Your task to perform on an android device: When is my next meeting? Image 0: 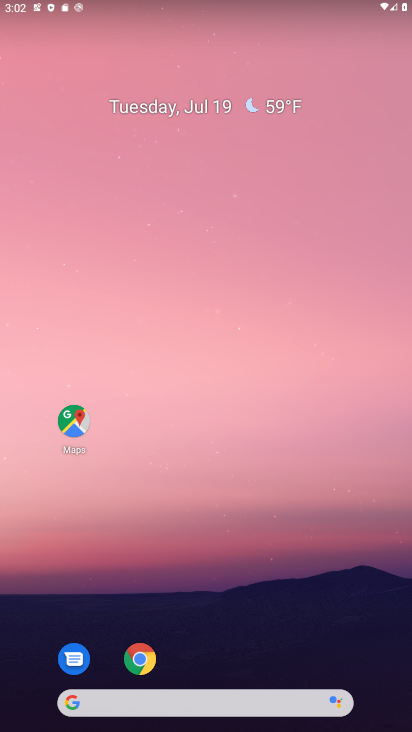
Step 0: drag from (185, 706) to (250, 139)
Your task to perform on an android device: When is my next meeting? Image 1: 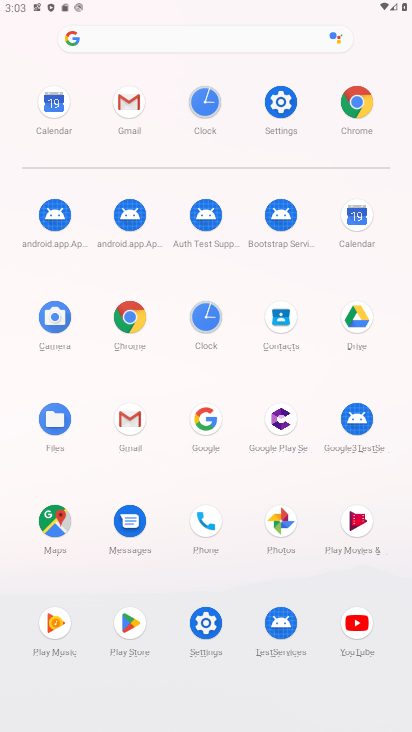
Step 1: click (359, 219)
Your task to perform on an android device: When is my next meeting? Image 2: 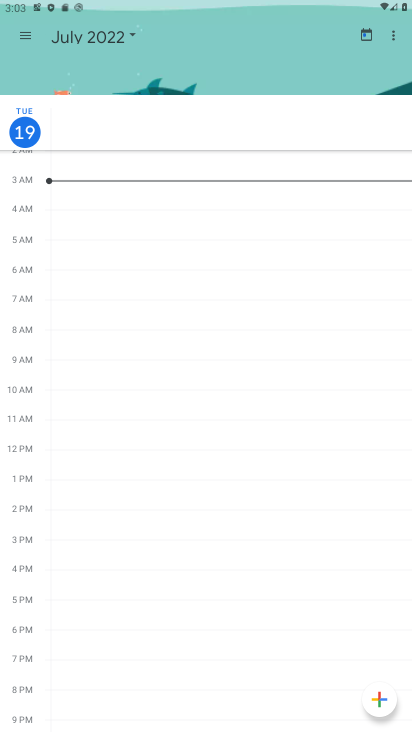
Step 2: click (367, 36)
Your task to perform on an android device: When is my next meeting? Image 3: 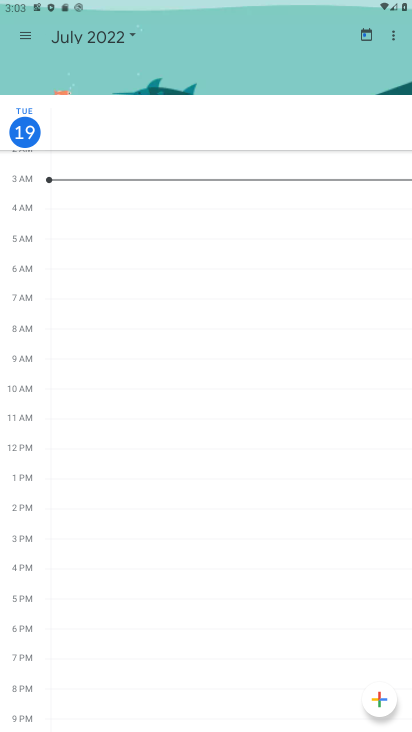
Step 3: click (132, 35)
Your task to perform on an android device: When is my next meeting? Image 4: 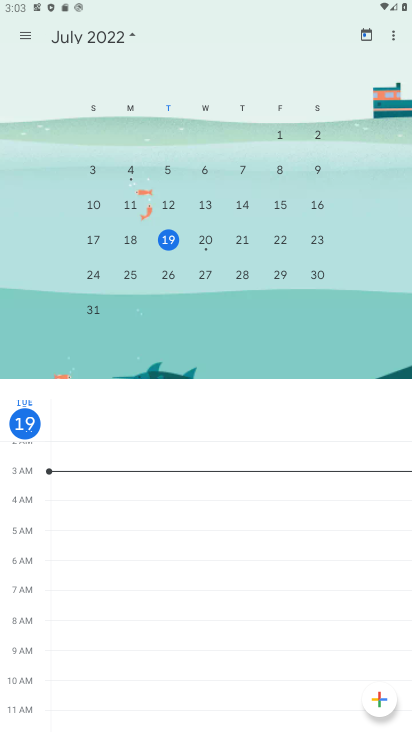
Step 4: click (203, 239)
Your task to perform on an android device: When is my next meeting? Image 5: 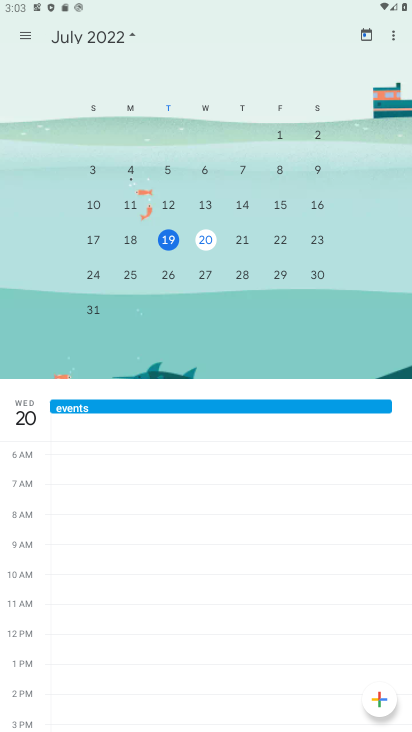
Step 5: click (27, 37)
Your task to perform on an android device: When is my next meeting? Image 6: 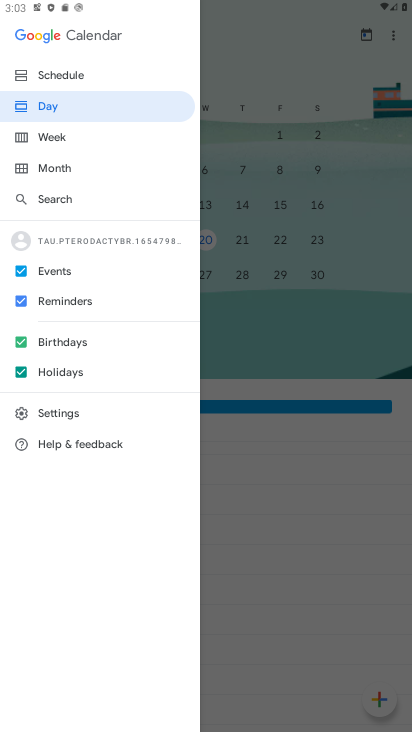
Step 6: click (84, 79)
Your task to perform on an android device: When is my next meeting? Image 7: 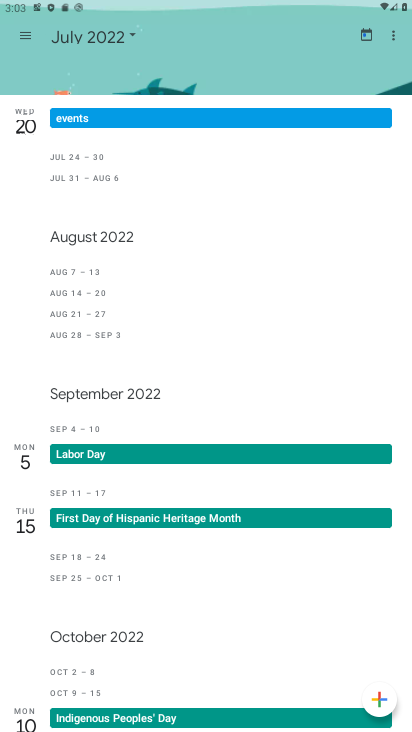
Step 7: task complete